Your task to perform on an android device: change notification settings in the gmail app Image 0: 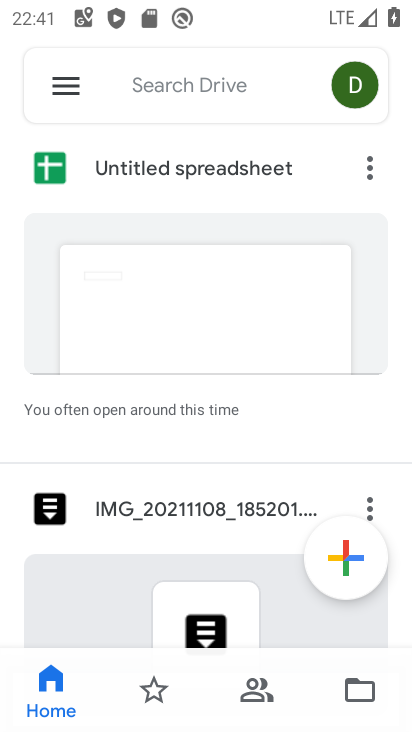
Step 0: press home button
Your task to perform on an android device: change notification settings in the gmail app Image 1: 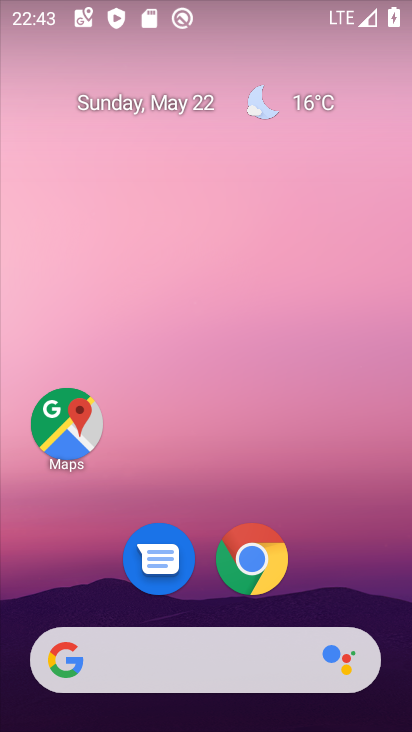
Step 1: drag from (280, 696) to (211, 147)
Your task to perform on an android device: change notification settings in the gmail app Image 2: 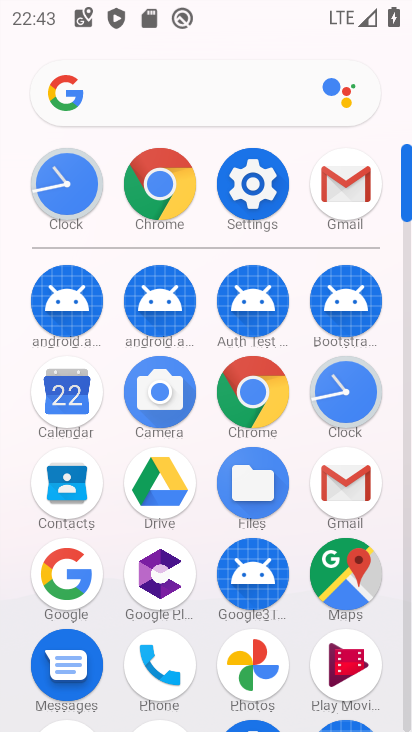
Step 2: click (323, 204)
Your task to perform on an android device: change notification settings in the gmail app Image 3: 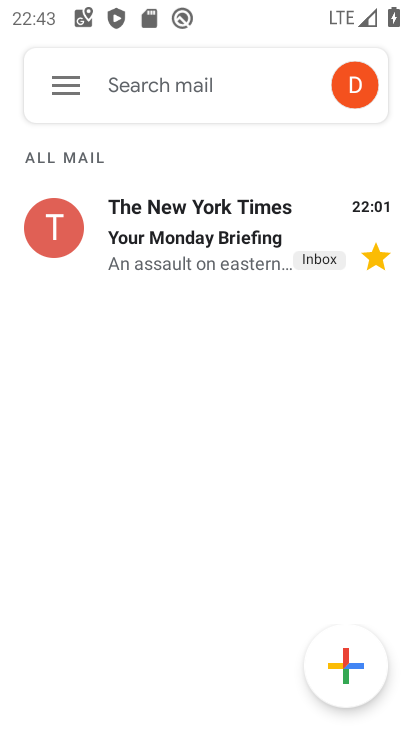
Step 3: click (51, 81)
Your task to perform on an android device: change notification settings in the gmail app Image 4: 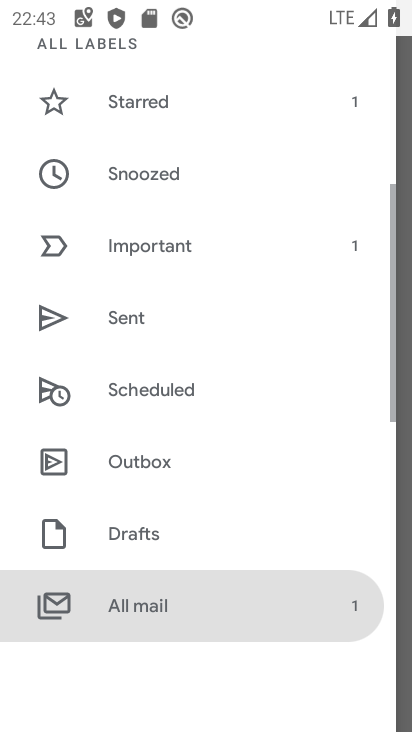
Step 4: drag from (98, 629) to (161, 203)
Your task to perform on an android device: change notification settings in the gmail app Image 5: 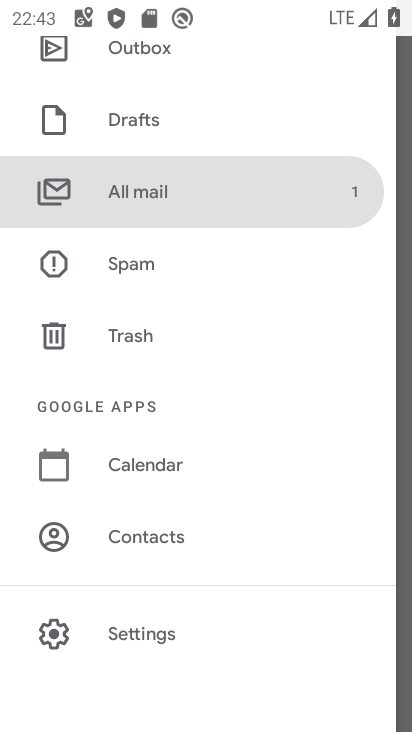
Step 5: click (137, 637)
Your task to perform on an android device: change notification settings in the gmail app Image 6: 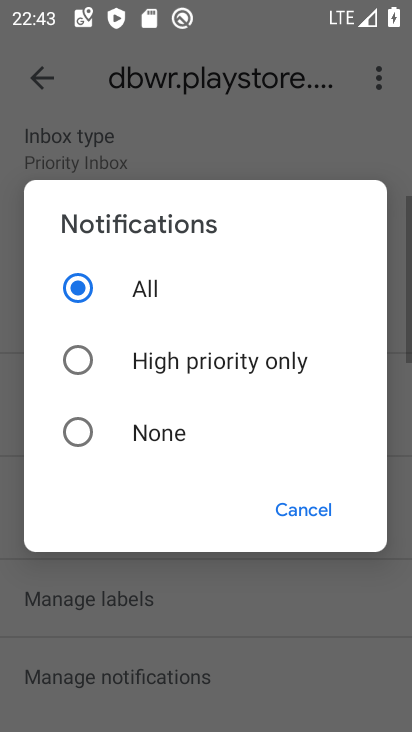
Step 6: click (309, 508)
Your task to perform on an android device: change notification settings in the gmail app Image 7: 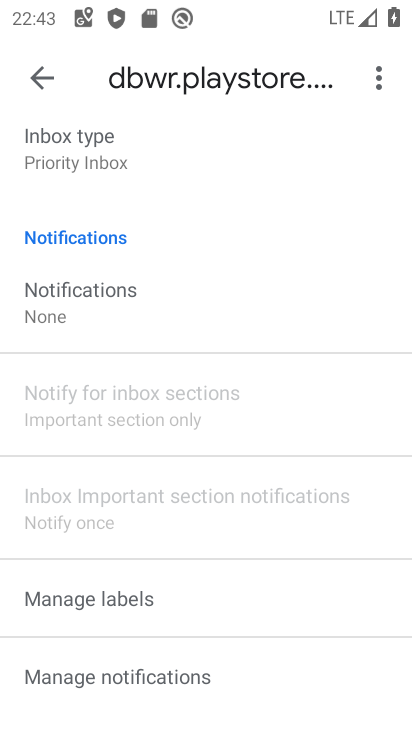
Step 7: click (114, 317)
Your task to perform on an android device: change notification settings in the gmail app Image 8: 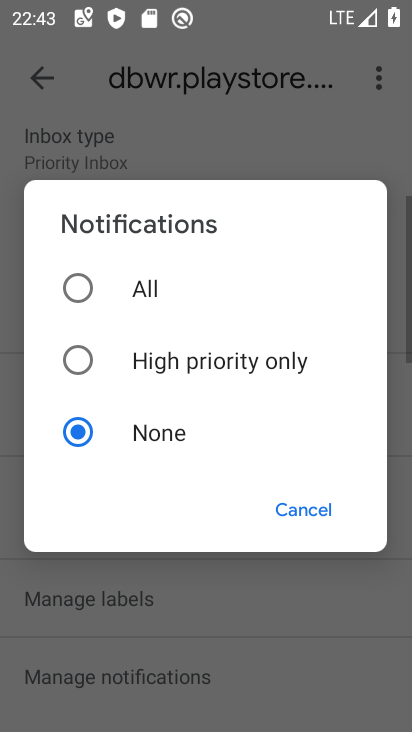
Step 8: click (139, 279)
Your task to perform on an android device: change notification settings in the gmail app Image 9: 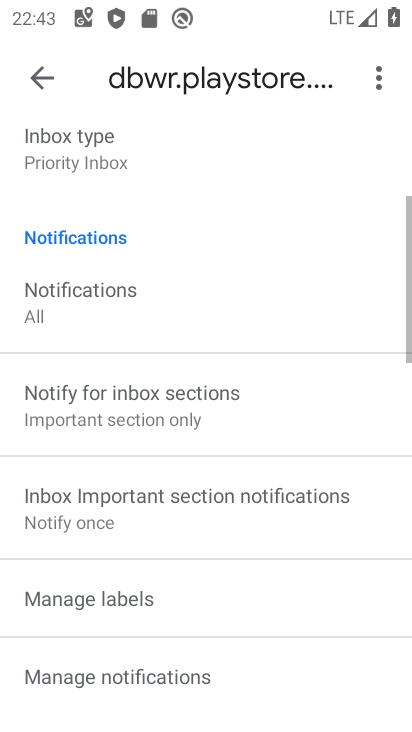
Step 9: task complete